Your task to perform on an android device: Go to sound settings Image 0: 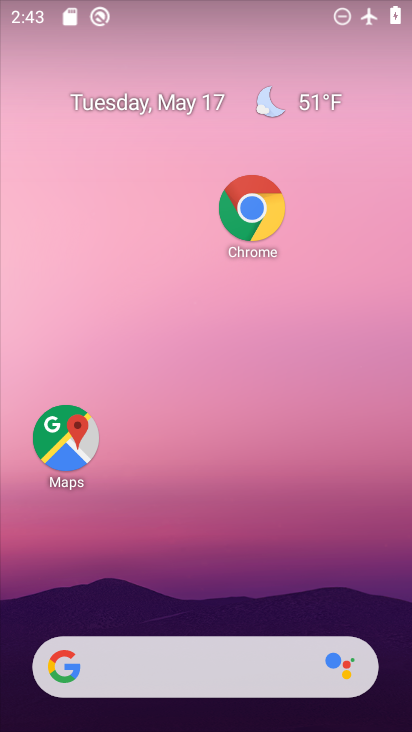
Step 0: drag from (231, 625) to (245, 228)
Your task to perform on an android device: Go to sound settings Image 1: 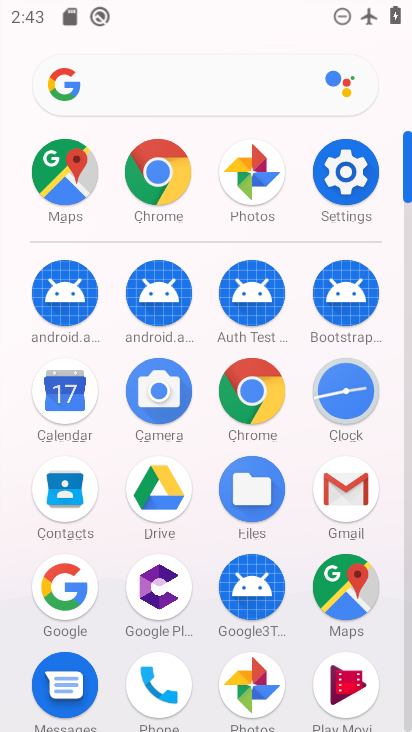
Step 1: click (327, 185)
Your task to perform on an android device: Go to sound settings Image 2: 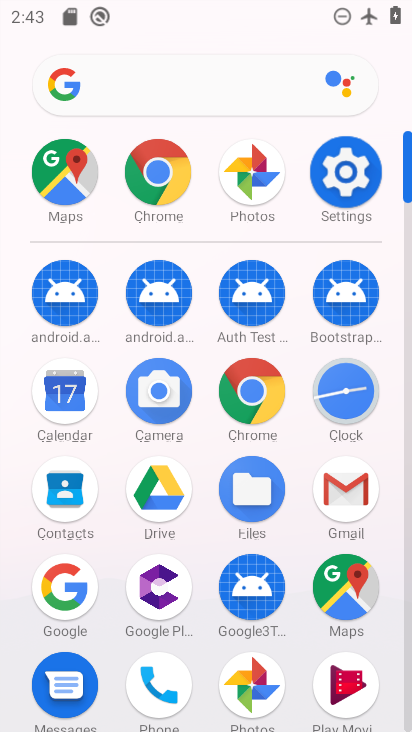
Step 2: click (327, 185)
Your task to perform on an android device: Go to sound settings Image 3: 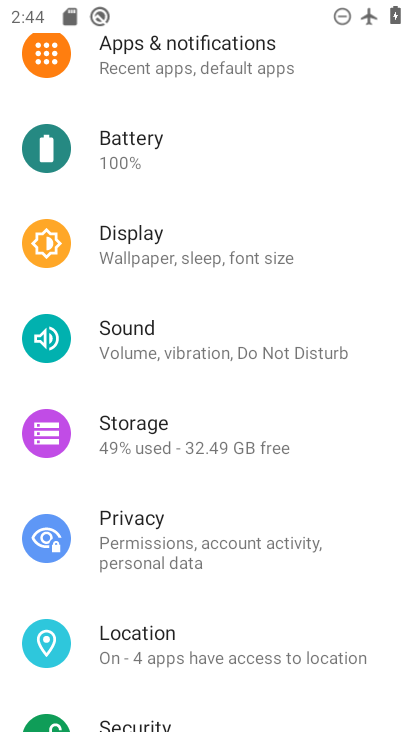
Step 3: click (110, 315)
Your task to perform on an android device: Go to sound settings Image 4: 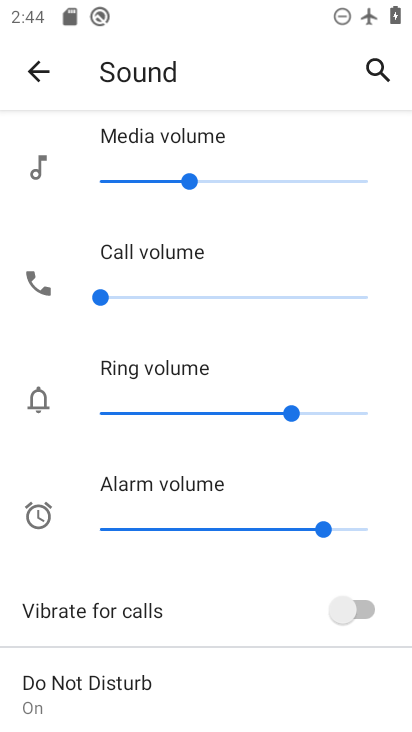
Step 4: task complete